Your task to perform on an android device: open app "Google News" Image 0: 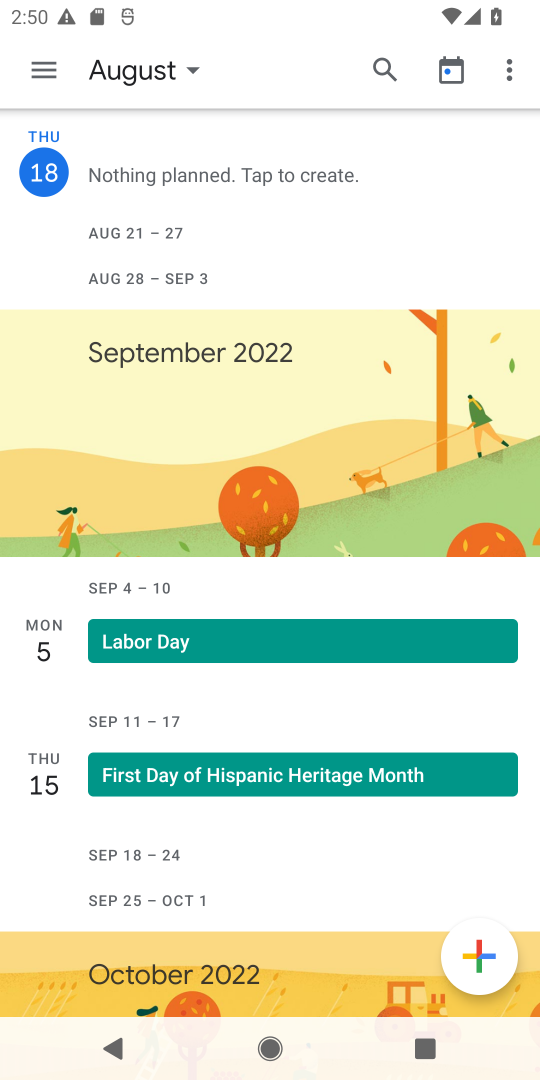
Step 0: press home button
Your task to perform on an android device: open app "Google News" Image 1: 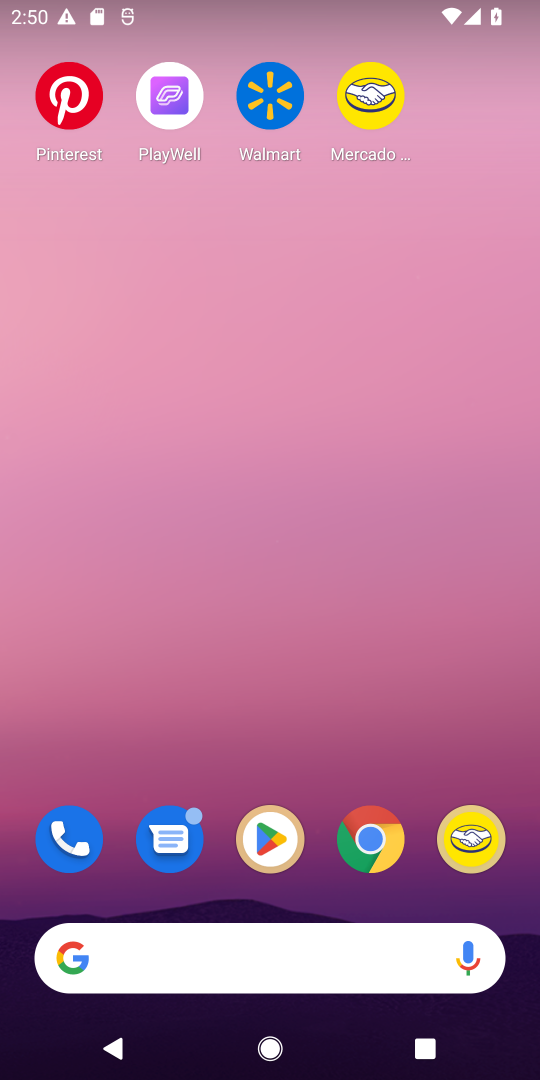
Step 1: drag from (243, 922) to (159, 155)
Your task to perform on an android device: open app "Google News" Image 2: 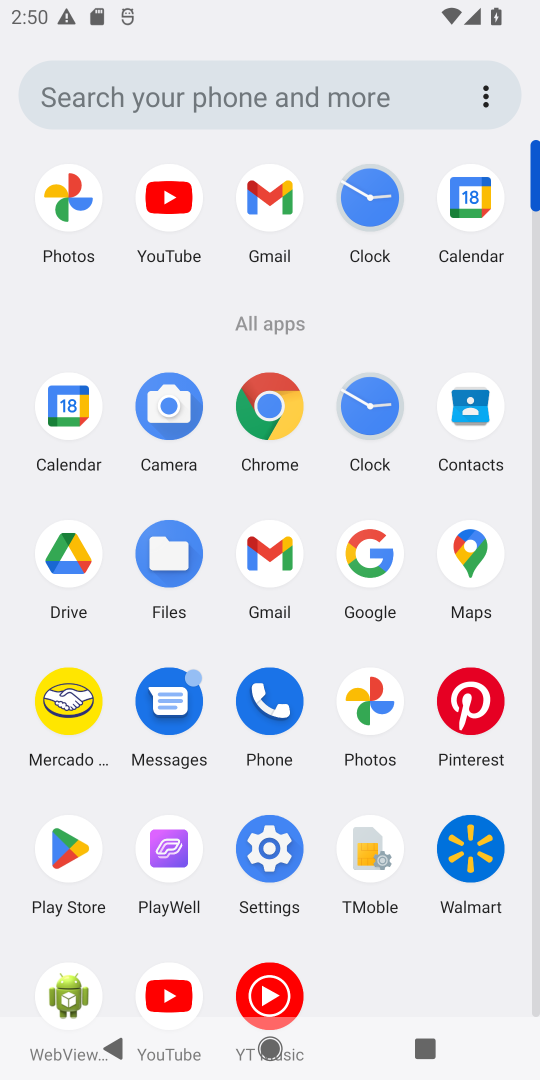
Step 2: click (89, 837)
Your task to perform on an android device: open app "Google News" Image 3: 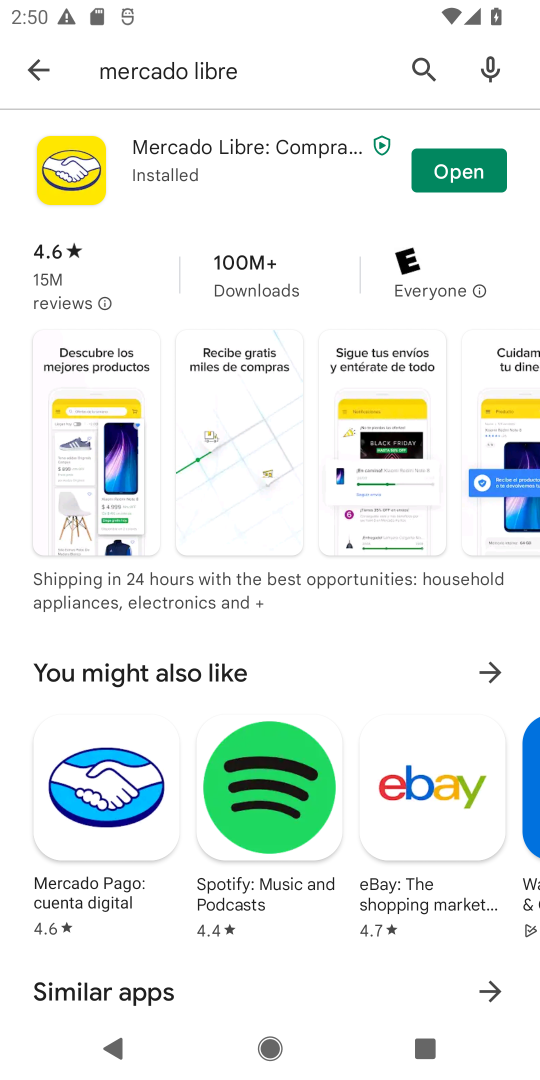
Step 3: click (78, 63)
Your task to perform on an android device: open app "Google News" Image 4: 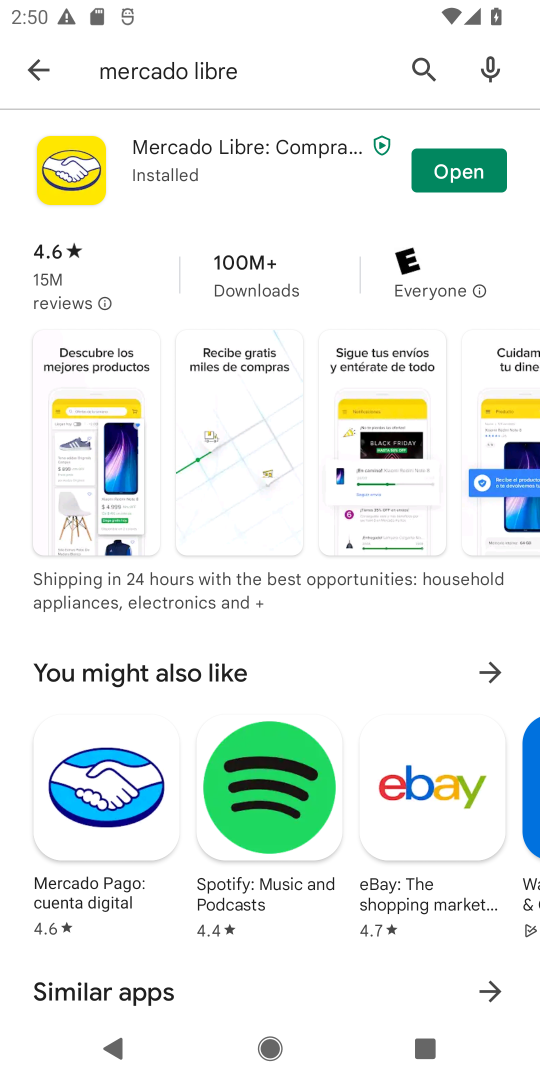
Step 4: click (45, 79)
Your task to perform on an android device: open app "Google News" Image 5: 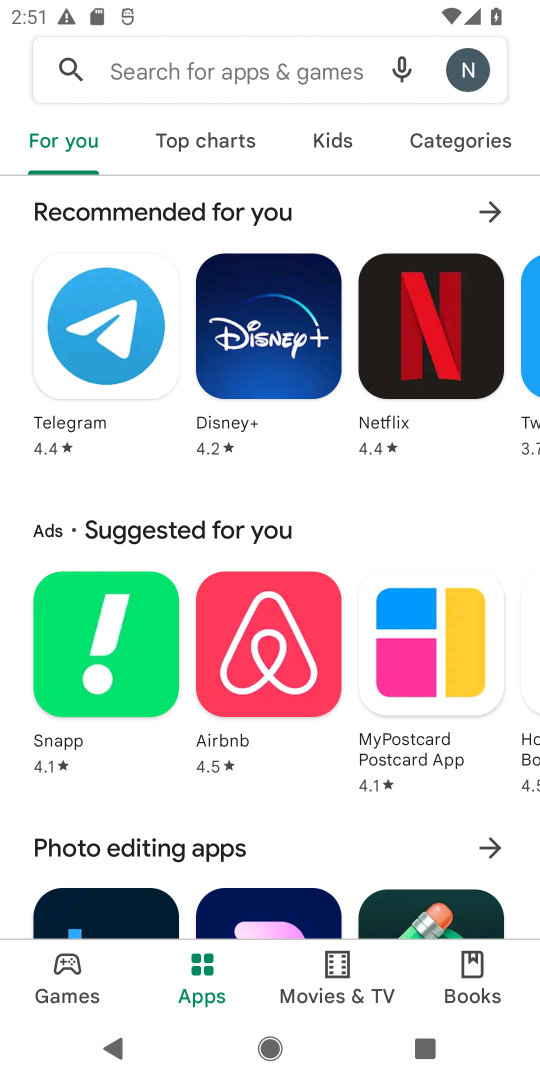
Step 5: click (118, 66)
Your task to perform on an android device: open app "Google News" Image 6: 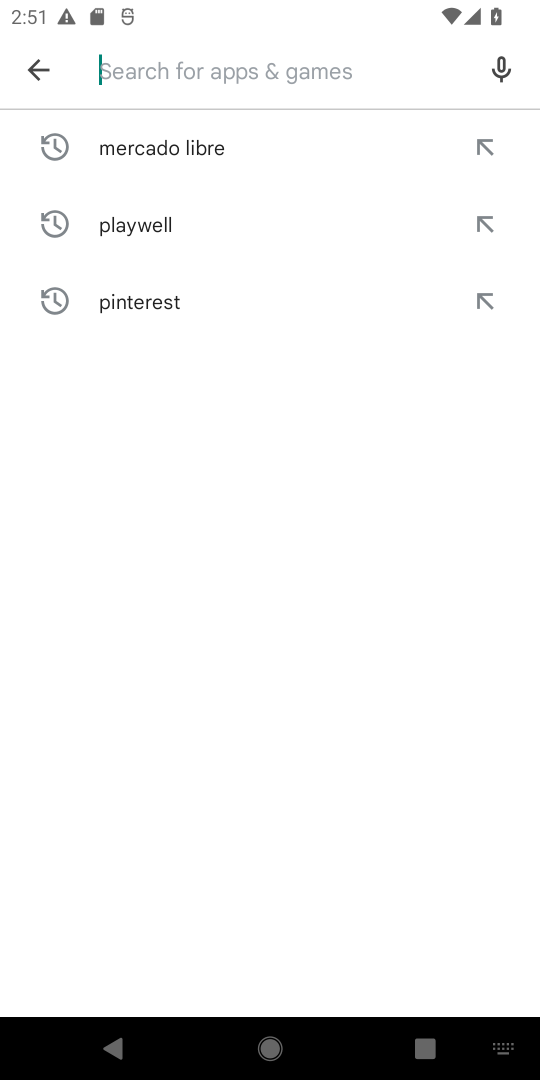
Step 6: type "Google News"
Your task to perform on an android device: open app "Google News" Image 7: 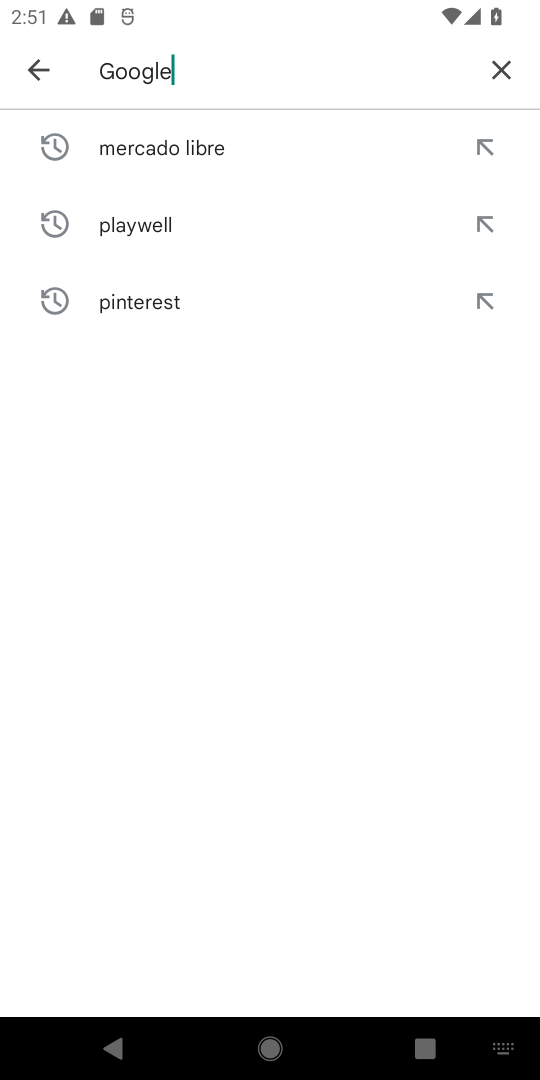
Step 7: type ""
Your task to perform on an android device: open app "Google News" Image 8: 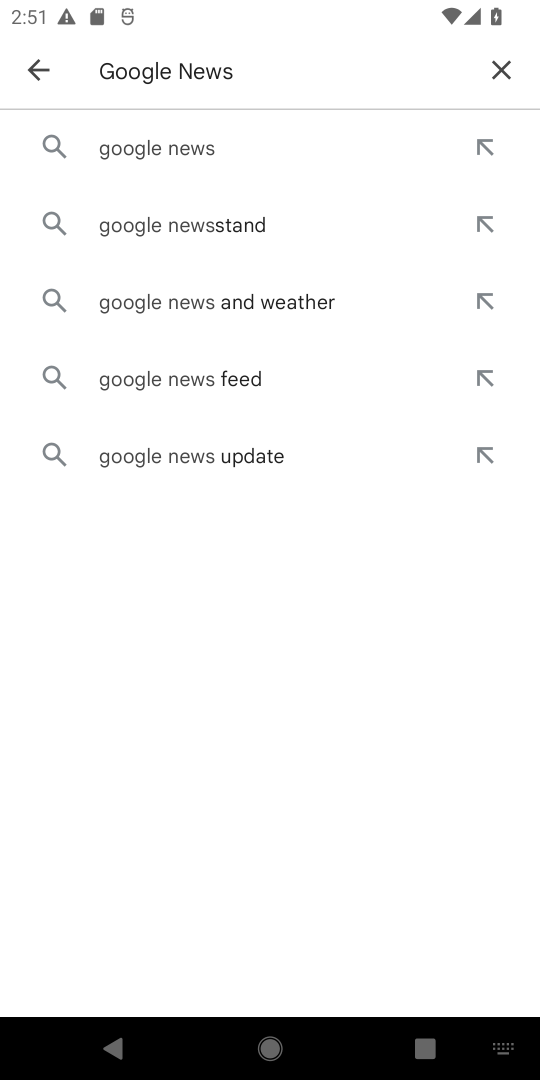
Step 8: click (192, 162)
Your task to perform on an android device: open app "Google News" Image 9: 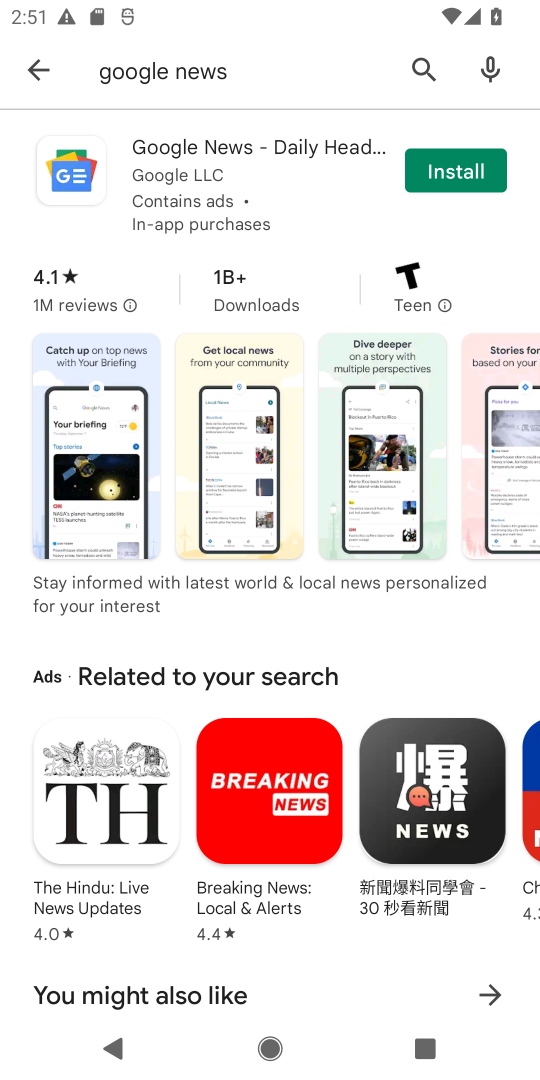
Step 9: task complete